Your task to perform on an android device: uninstall "Google Keep" Image 0: 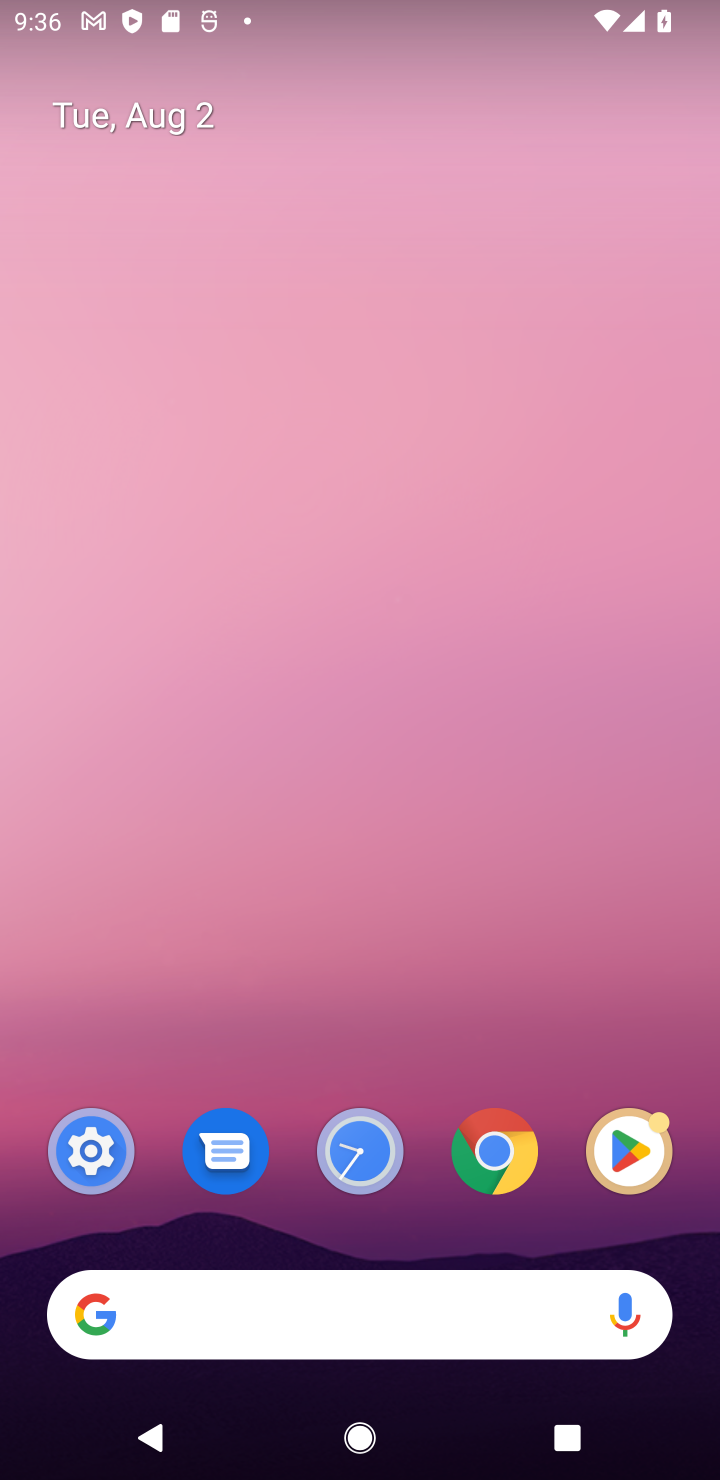
Step 0: drag from (360, 1221) to (151, 795)
Your task to perform on an android device: uninstall "Google Keep" Image 1: 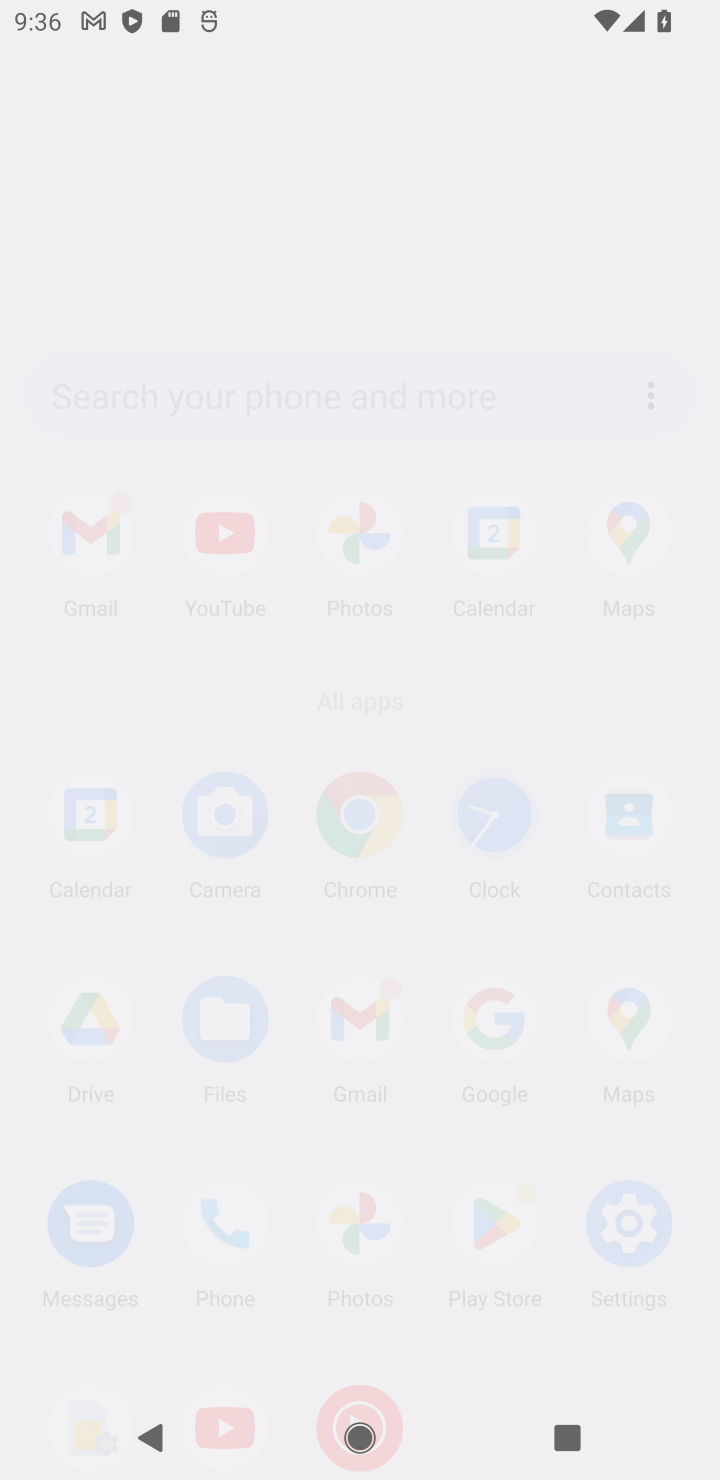
Step 1: click (499, 956)
Your task to perform on an android device: uninstall "Google Keep" Image 2: 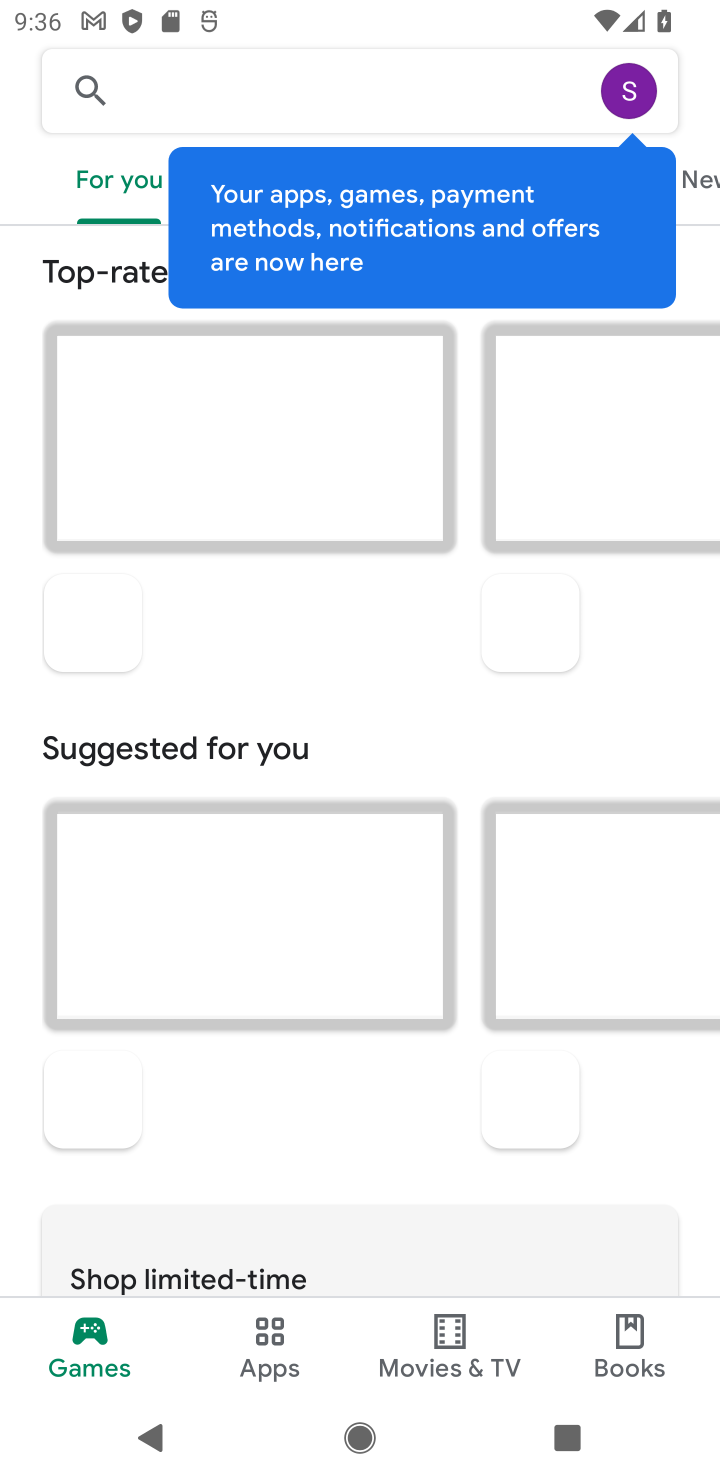
Step 2: click (261, 85)
Your task to perform on an android device: uninstall "Google Keep" Image 3: 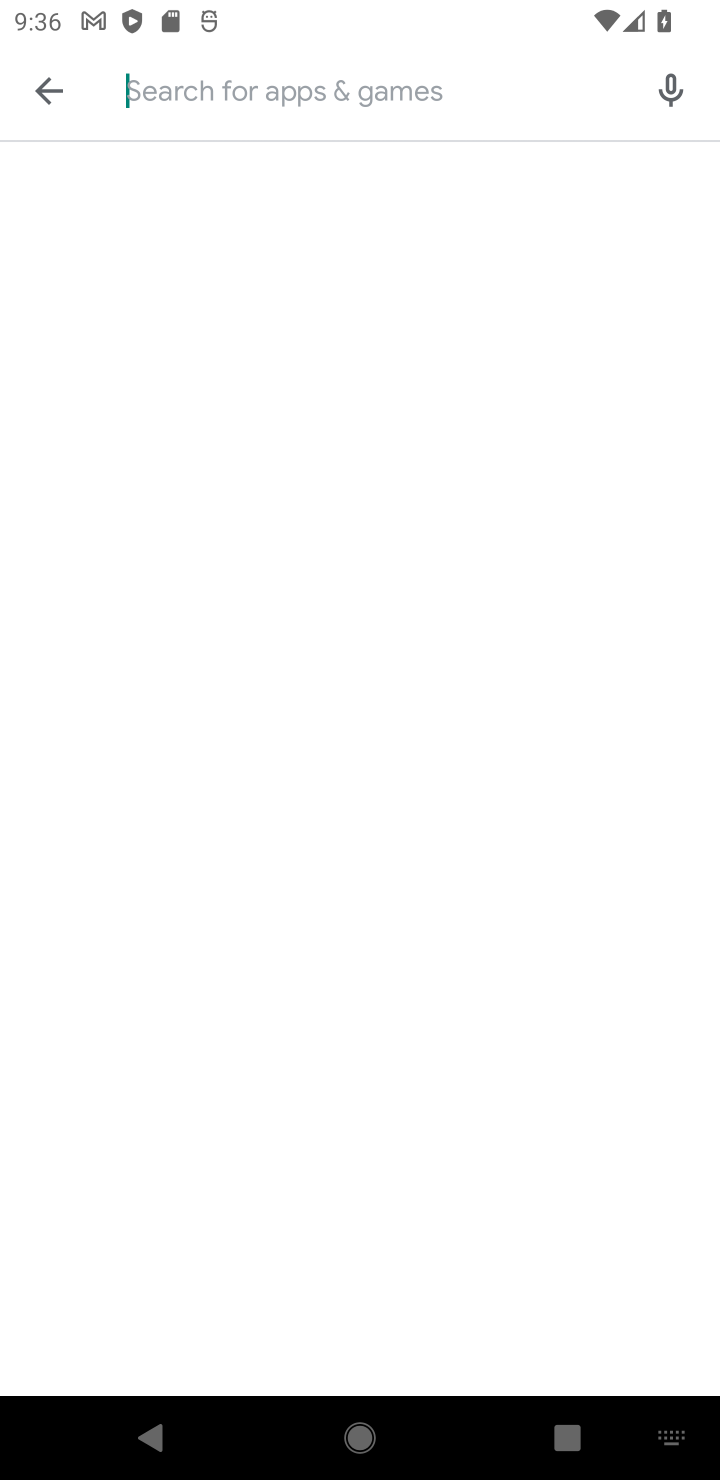
Step 3: type "Google Keep"
Your task to perform on an android device: uninstall "Google Keep" Image 4: 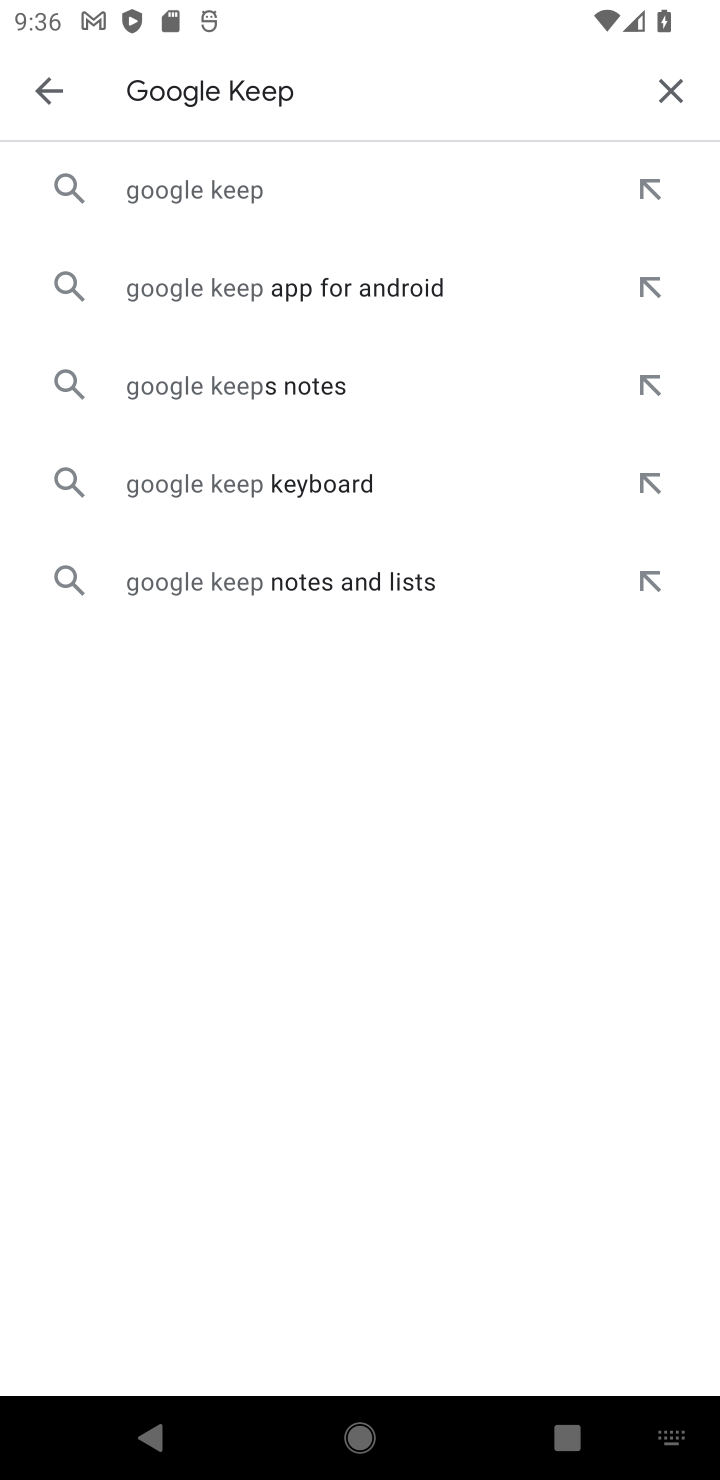
Step 4: click (203, 193)
Your task to perform on an android device: uninstall "Google Keep" Image 5: 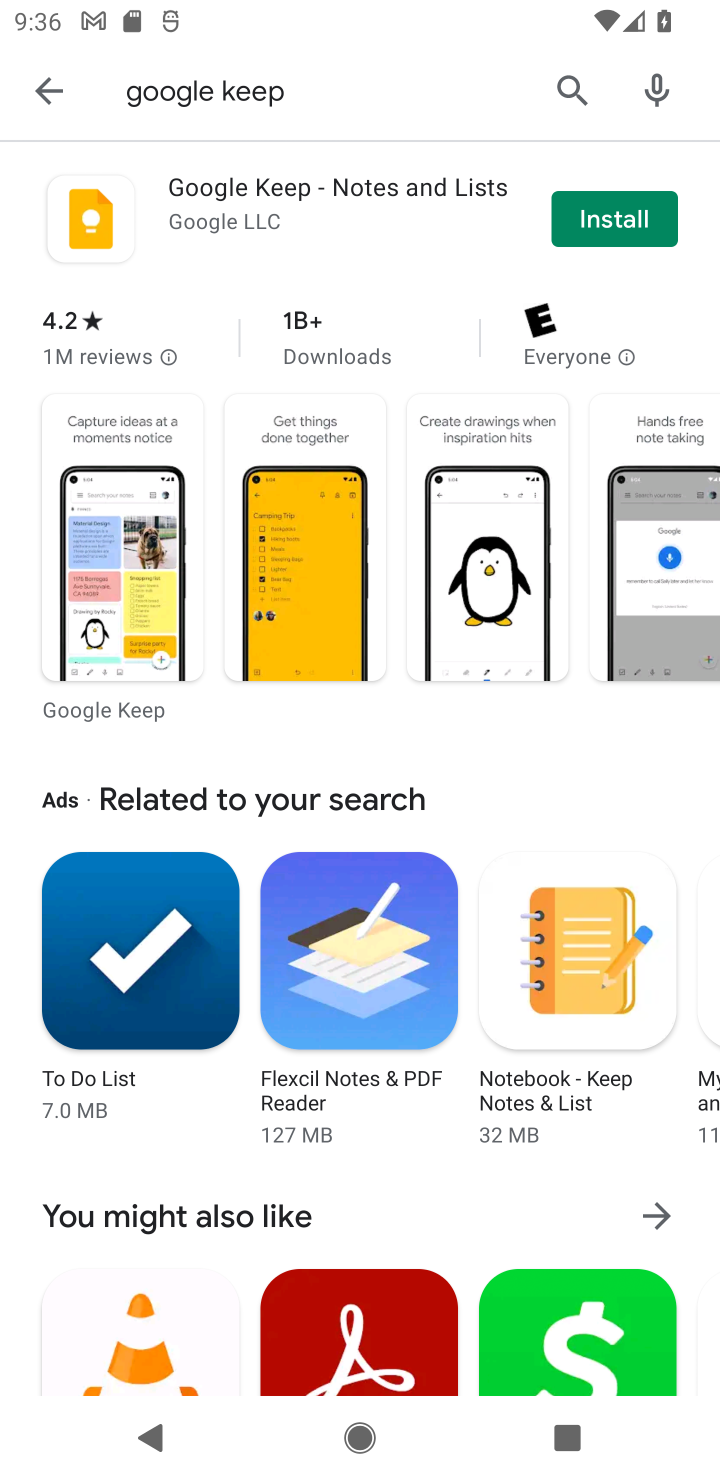
Step 5: click (332, 204)
Your task to perform on an android device: uninstall "Google Keep" Image 6: 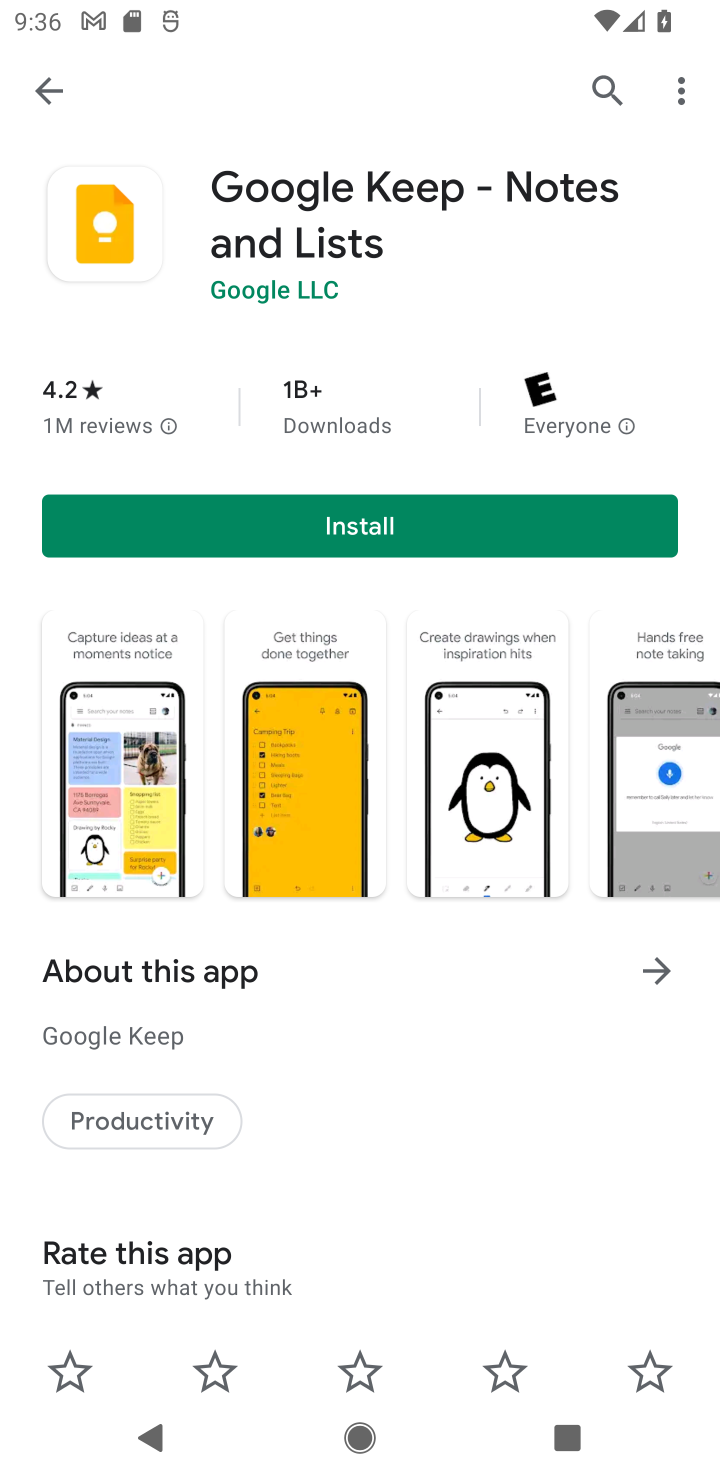
Step 6: task complete